Your task to perform on an android device: Go to Google Image 0: 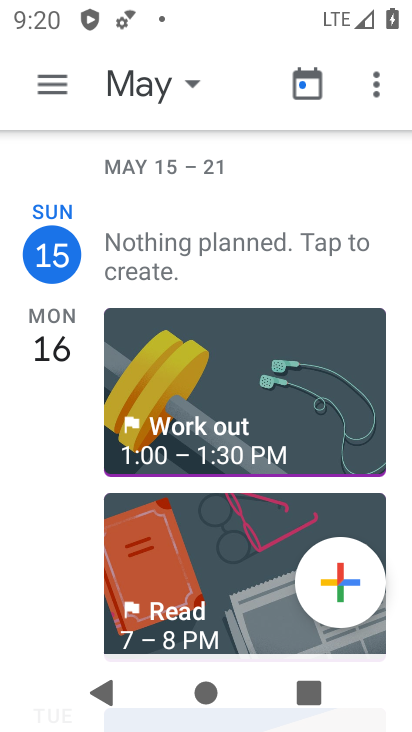
Step 0: press home button
Your task to perform on an android device: Go to Google Image 1: 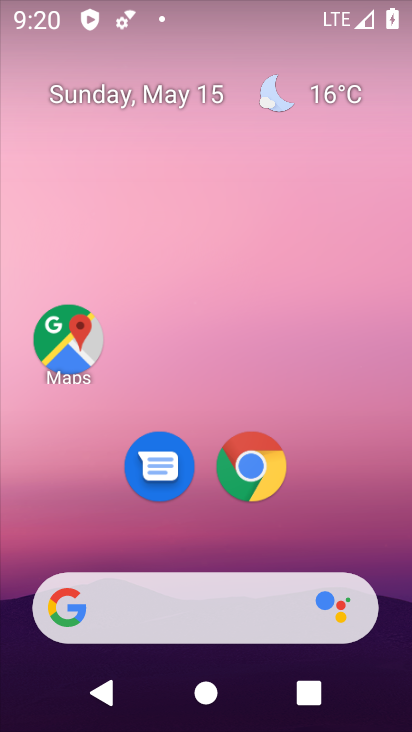
Step 1: drag from (174, 550) to (240, 159)
Your task to perform on an android device: Go to Google Image 2: 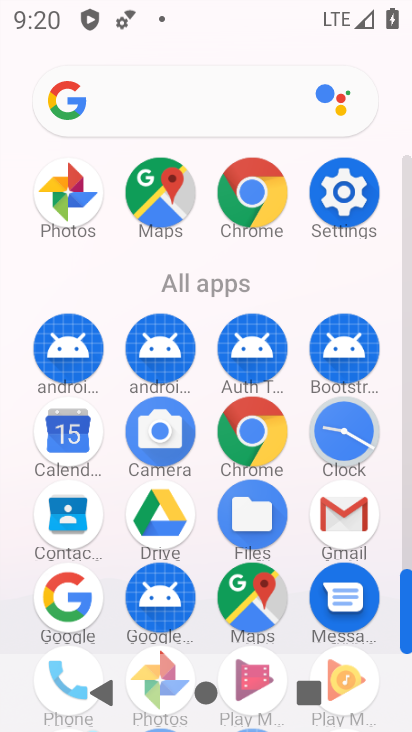
Step 2: drag from (147, 632) to (229, 362)
Your task to perform on an android device: Go to Google Image 3: 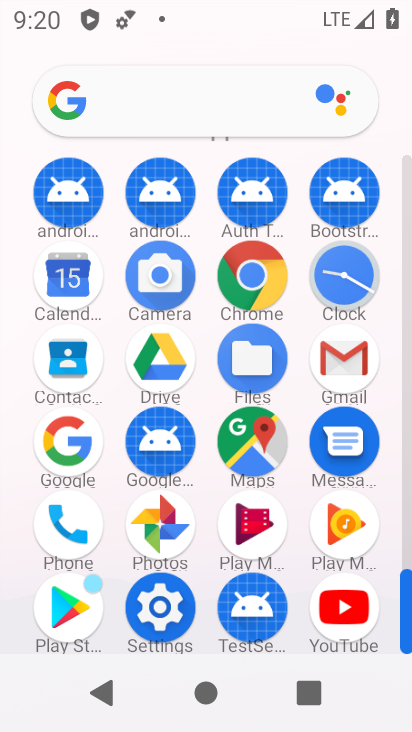
Step 3: click (65, 456)
Your task to perform on an android device: Go to Google Image 4: 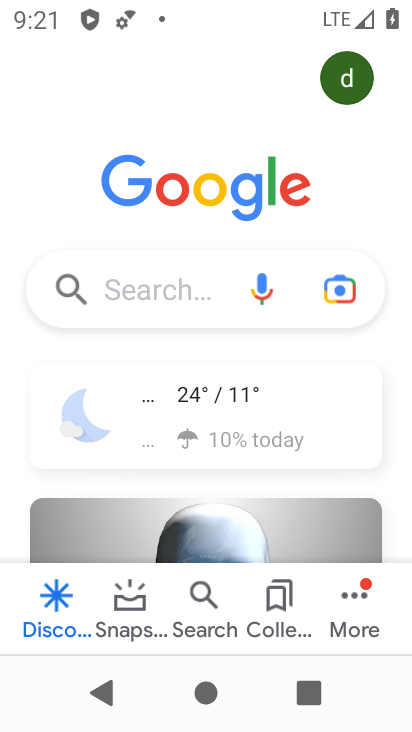
Step 4: task complete